Your task to perform on an android device: turn pop-ups on in chrome Image 0: 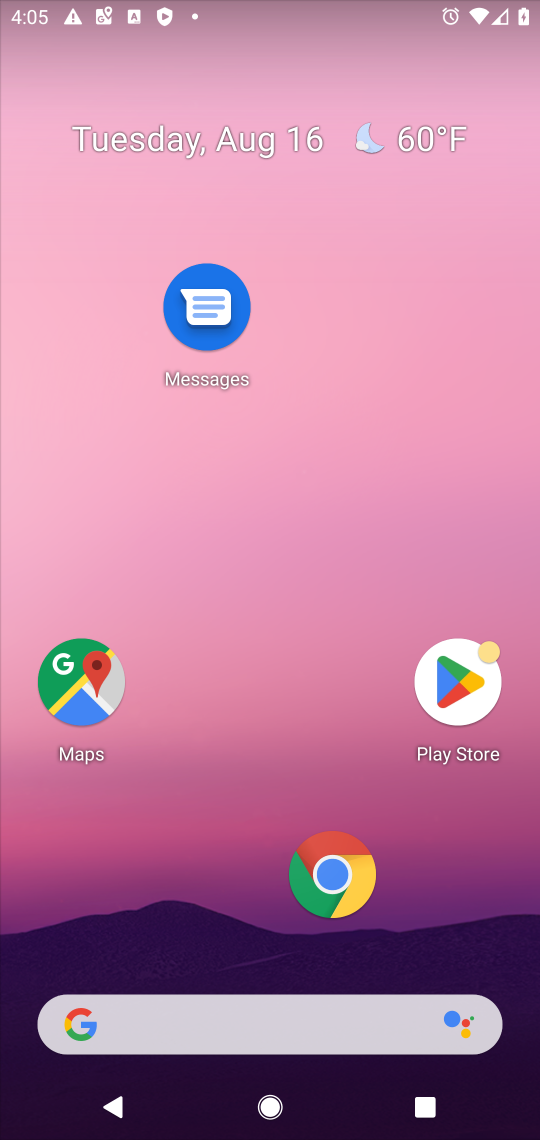
Step 0: click (337, 875)
Your task to perform on an android device: turn pop-ups on in chrome Image 1: 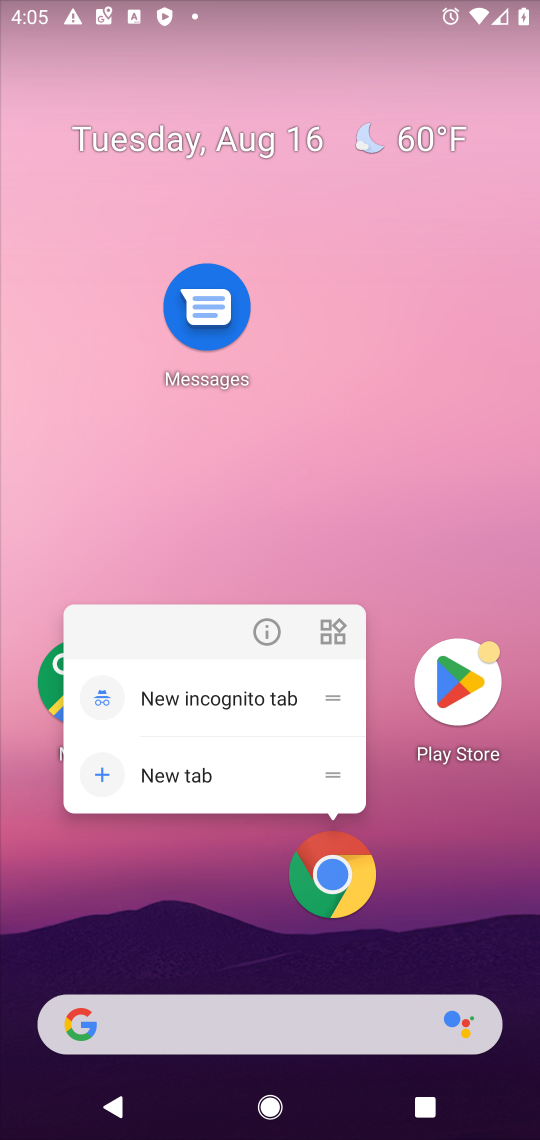
Step 1: click (325, 871)
Your task to perform on an android device: turn pop-ups on in chrome Image 2: 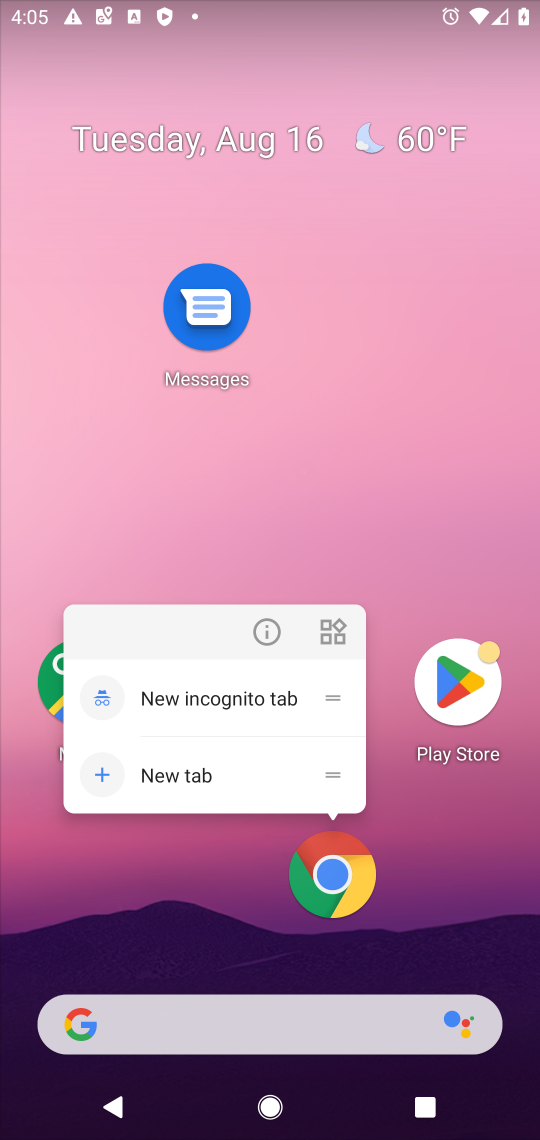
Step 2: click (325, 863)
Your task to perform on an android device: turn pop-ups on in chrome Image 3: 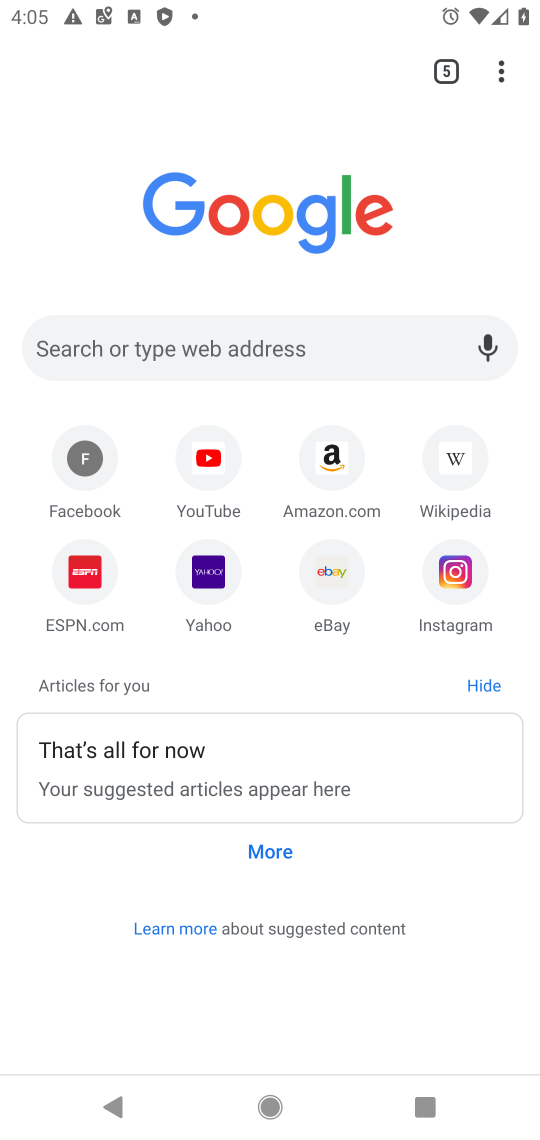
Step 3: click (503, 76)
Your task to perform on an android device: turn pop-ups on in chrome Image 4: 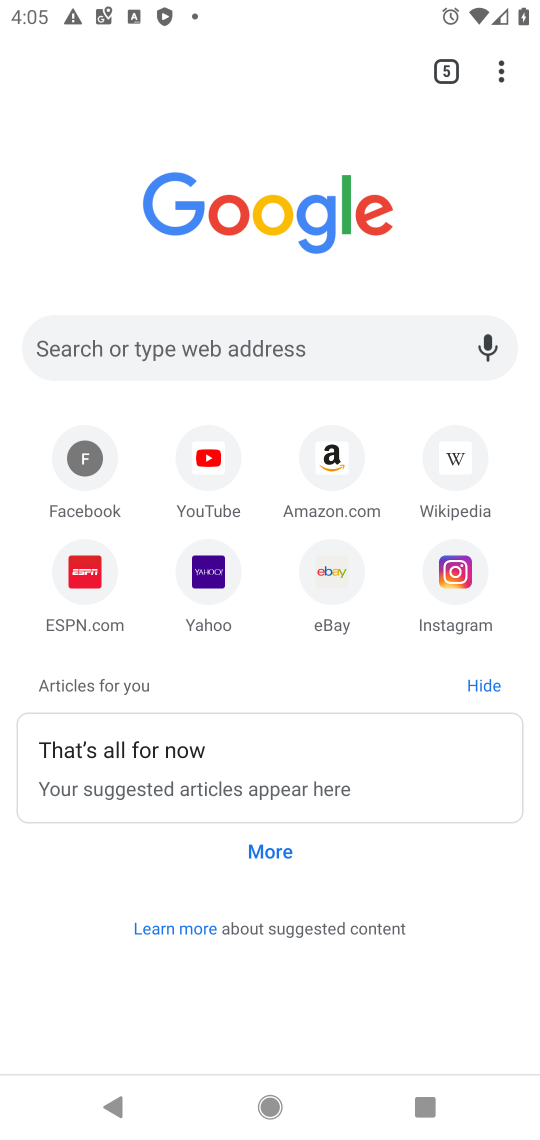
Step 4: click (501, 72)
Your task to perform on an android device: turn pop-ups on in chrome Image 5: 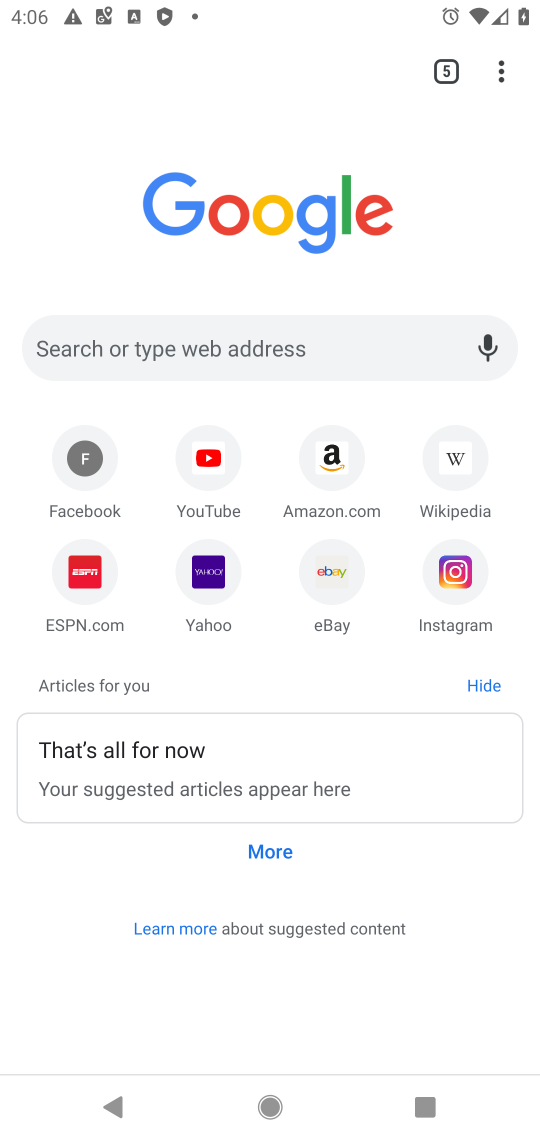
Step 5: click (501, 72)
Your task to perform on an android device: turn pop-ups on in chrome Image 6: 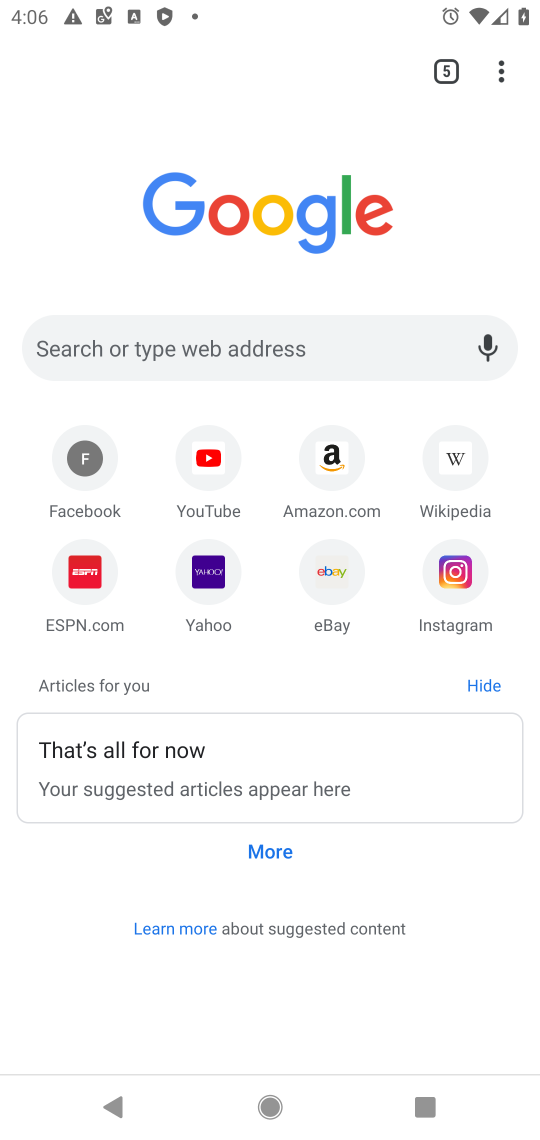
Step 6: click (501, 72)
Your task to perform on an android device: turn pop-ups on in chrome Image 7: 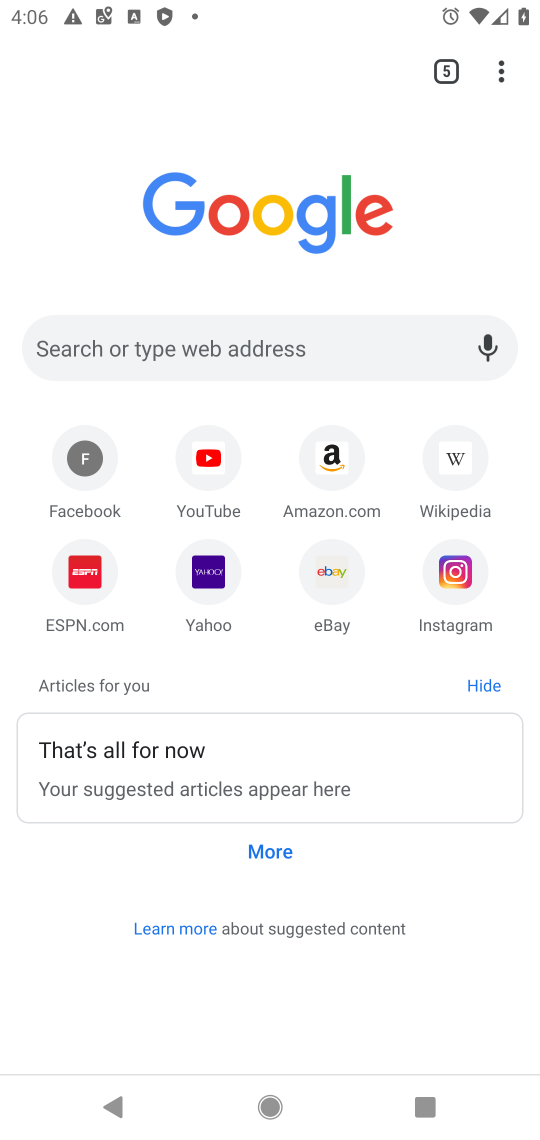
Step 7: click (505, 67)
Your task to perform on an android device: turn pop-ups on in chrome Image 8: 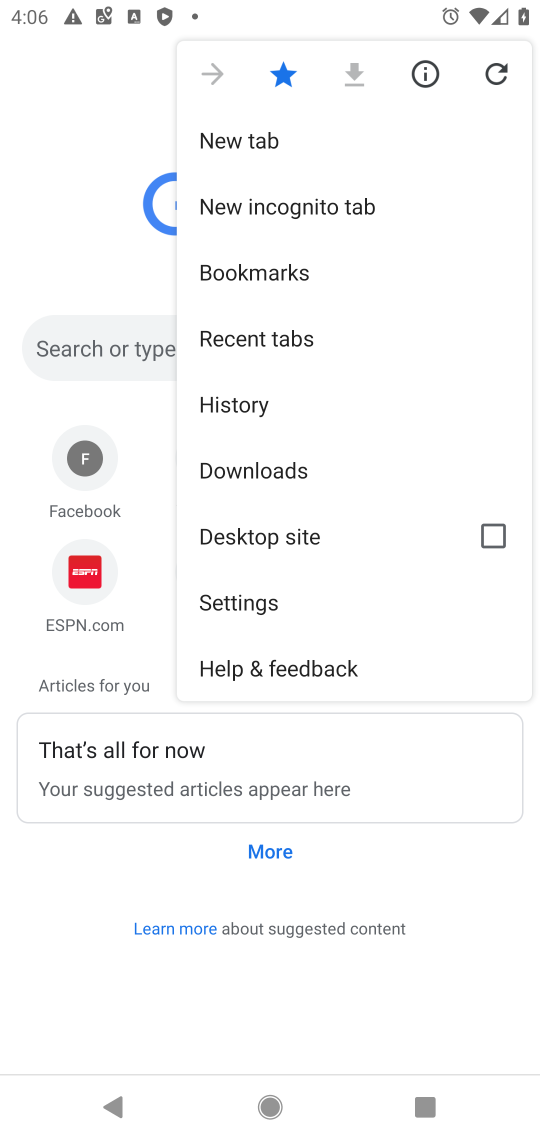
Step 8: click (239, 603)
Your task to perform on an android device: turn pop-ups on in chrome Image 9: 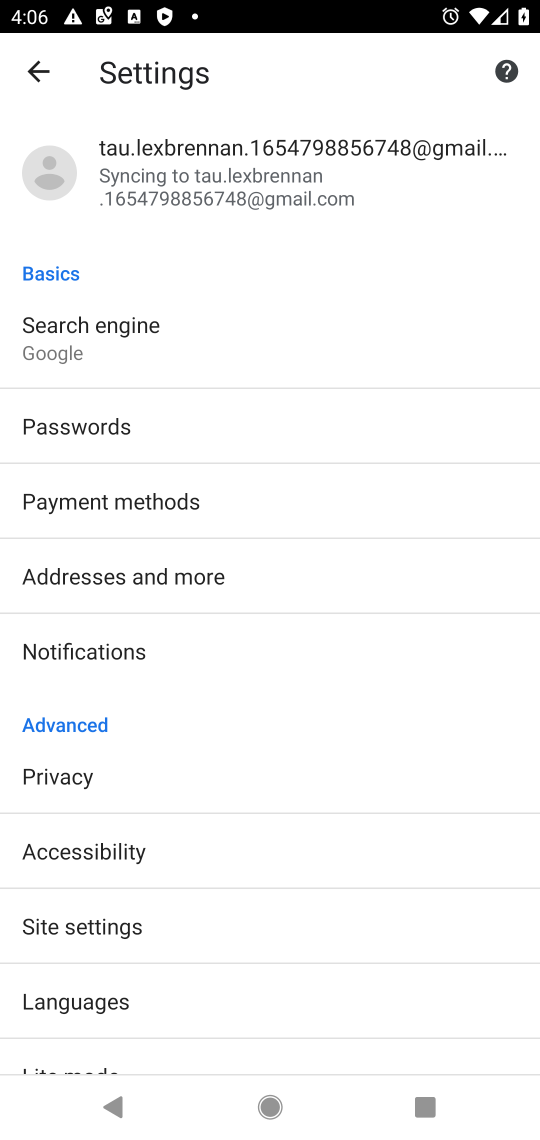
Step 9: task complete